Your task to perform on an android device: Go to wifi settings Image 0: 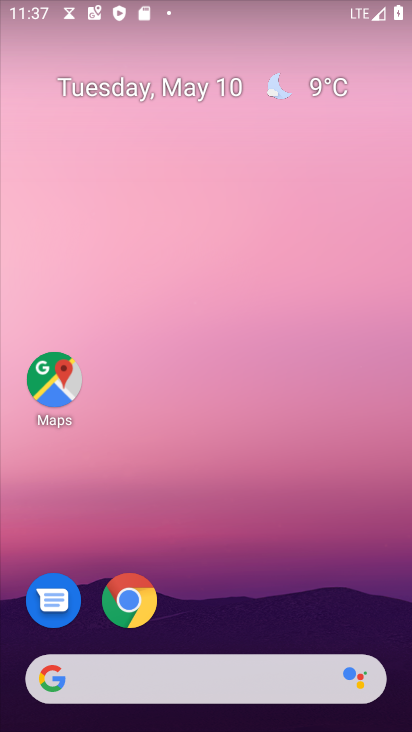
Step 0: drag from (197, 500) to (149, 71)
Your task to perform on an android device: Go to wifi settings Image 1: 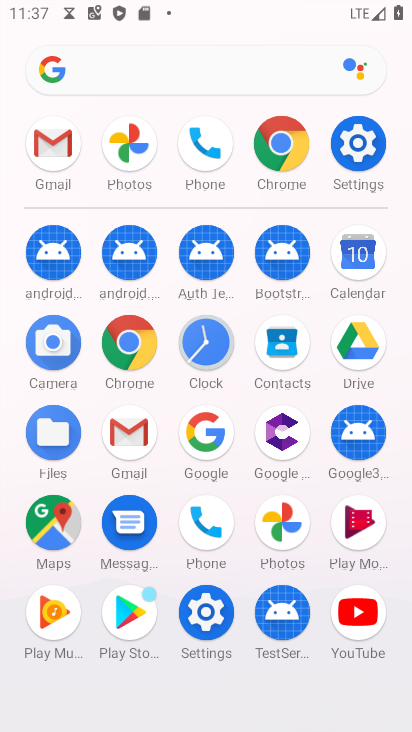
Step 1: click (366, 154)
Your task to perform on an android device: Go to wifi settings Image 2: 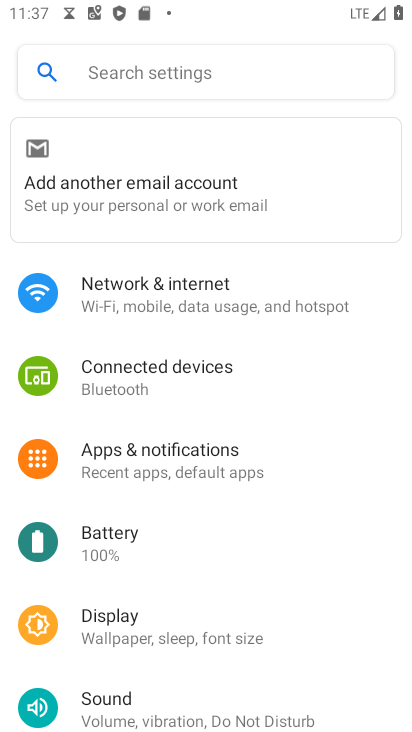
Step 2: click (180, 294)
Your task to perform on an android device: Go to wifi settings Image 3: 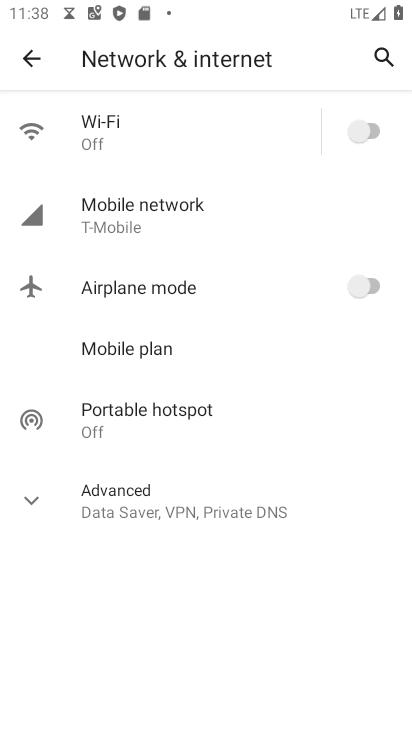
Step 3: click (172, 119)
Your task to perform on an android device: Go to wifi settings Image 4: 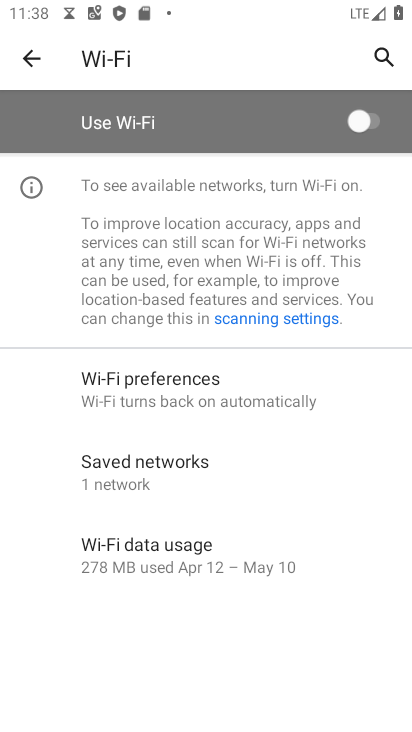
Step 4: task complete